Your task to perform on an android device: Go to calendar. Show me events next week Image 0: 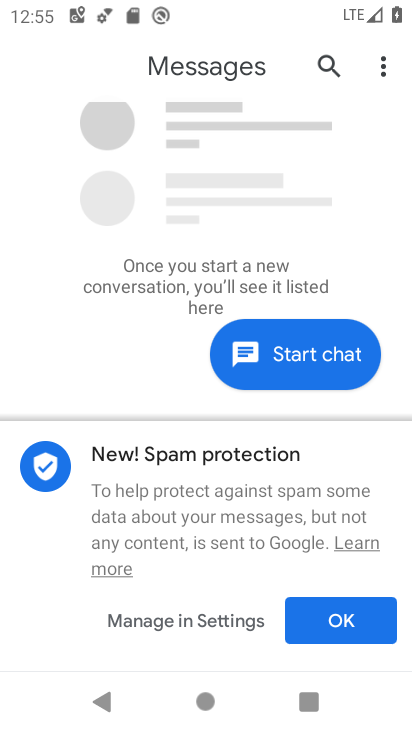
Step 0: press home button
Your task to perform on an android device: Go to calendar. Show me events next week Image 1: 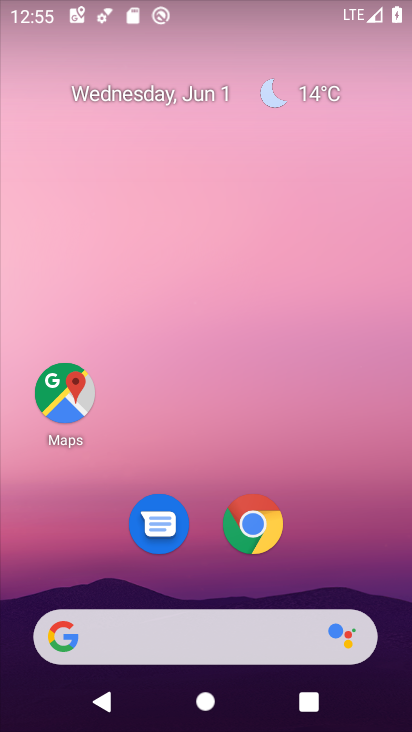
Step 1: drag from (315, 545) to (342, 20)
Your task to perform on an android device: Go to calendar. Show me events next week Image 2: 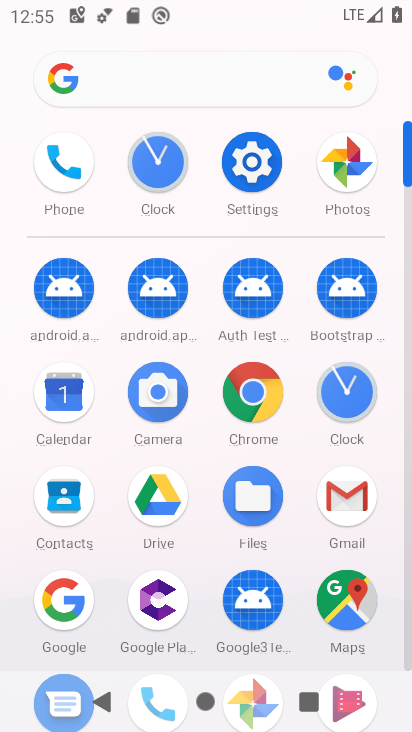
Step 2: click (81, 398)
Your task to perform on an android device: Go to calendar. Show me events next week Image 3: 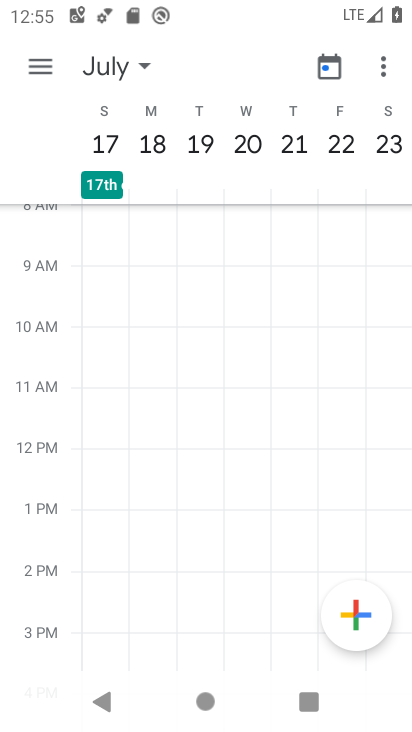
Step 3: click (47, 71)
Your task to perform on an android device: Go to calendar. Show me events next week Image 4: 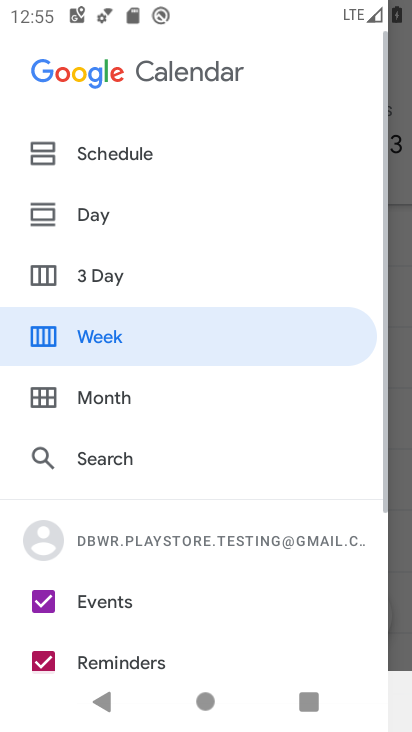
Step 4: click (34, 395)
Your task to perform on an android device: Go to calendar. Show me events next week Image 5: 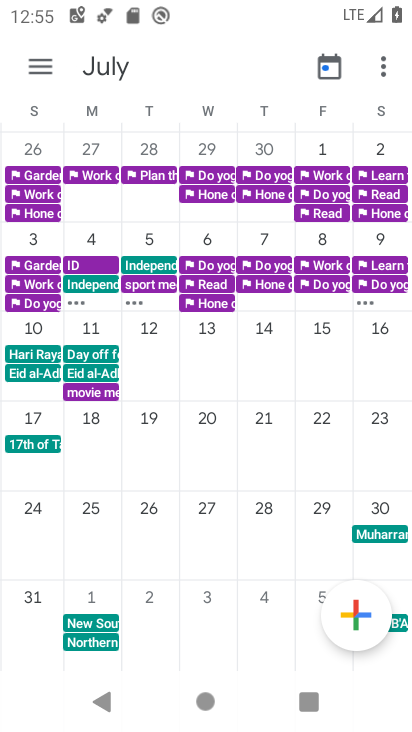
Step 5: drag from (78, 418) to (394, 349)
Your task to perform on an android device: Go to calendar. Show me events next week Image 6: 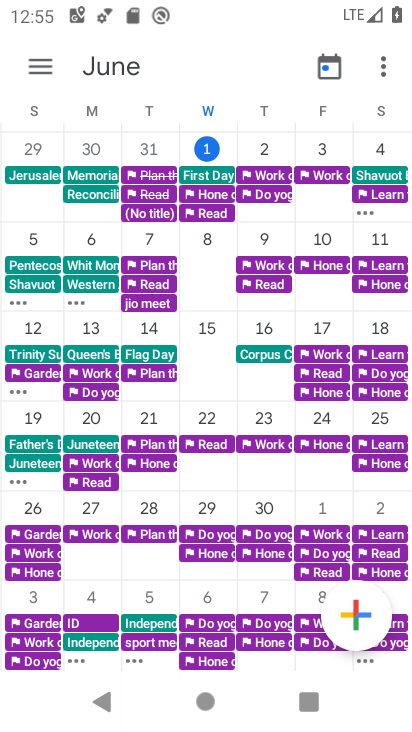
Step 6: click (36, 235)
Your task to perform on an android device: Go to calendar. Show me events next week Image 7: 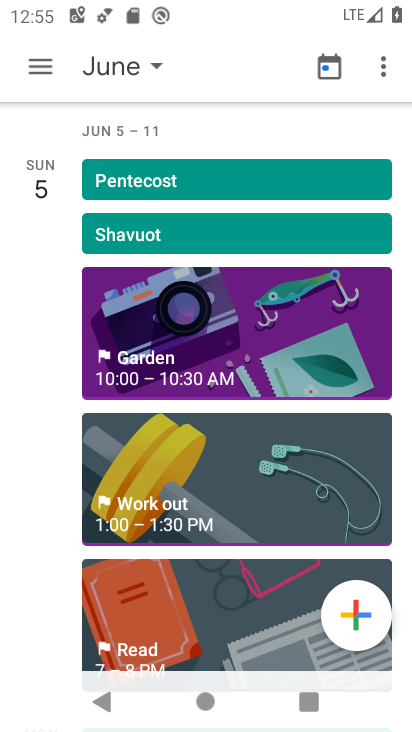
Step 7: click (45, 66)
Your task to perform on an android device: Go to calendar. Show me events next week Image 8: 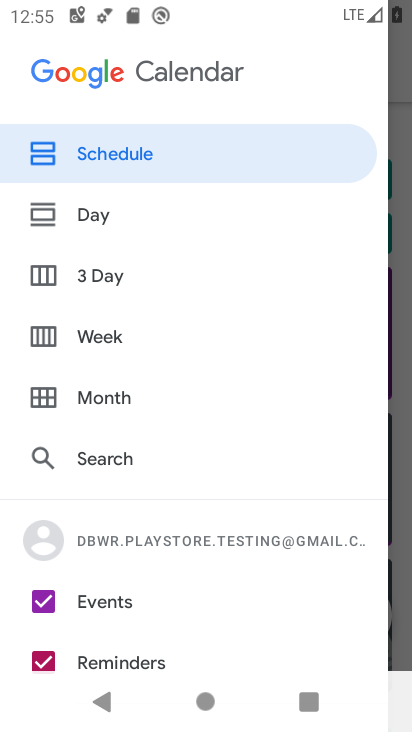
Step 8: click (45, 327)
Your task to perform on an android device: Go to calendar. Show me events next week Image 9: 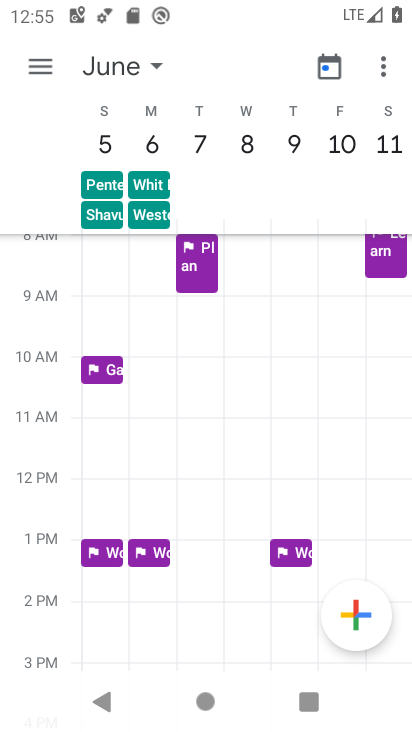
Step 9: task complete